Your task to perform on an android device: set the stopwatch Image 0: 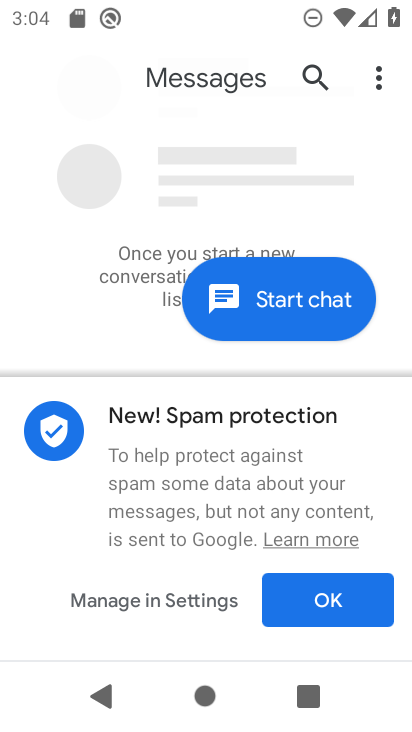
Step 0: press back button
Your task to perform on an android device: set the stopwatch Image 1: 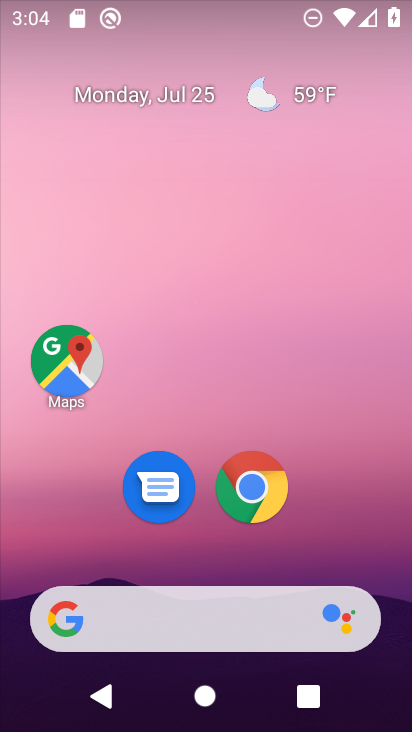
Step 1: drag from (87, 521) to (204, 71)
Your task to perform on an android device: set the stopwatch Image 2: 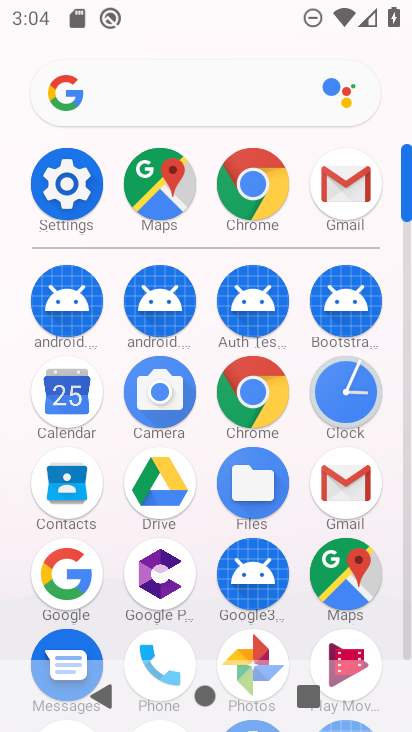
Step 2: click (365, 385)
Your task to perform on an android device: set the stopwatch Image 3: 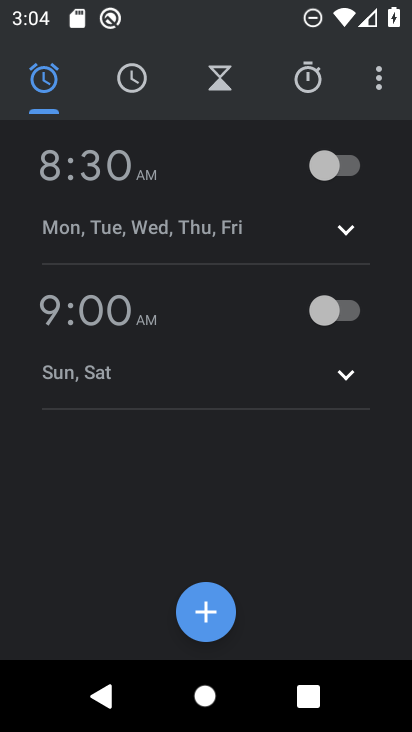
Step 3: click (126, 74)
Your task to perform on an android device: set the stopwatch Image 4: 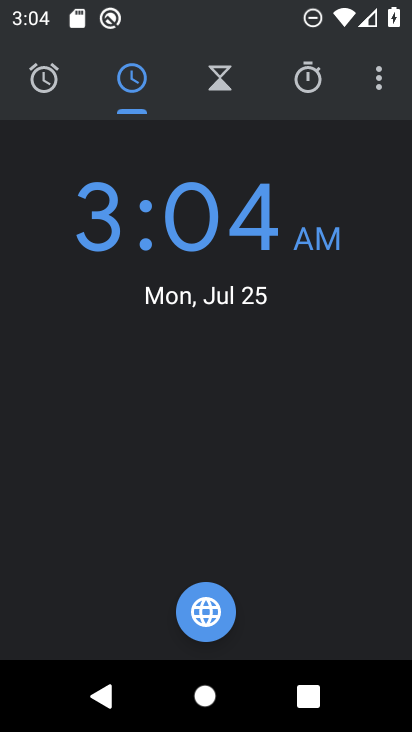
Step 4: click (219, 70)
Your task to perform on an android device: set the stopwatch Image 5: 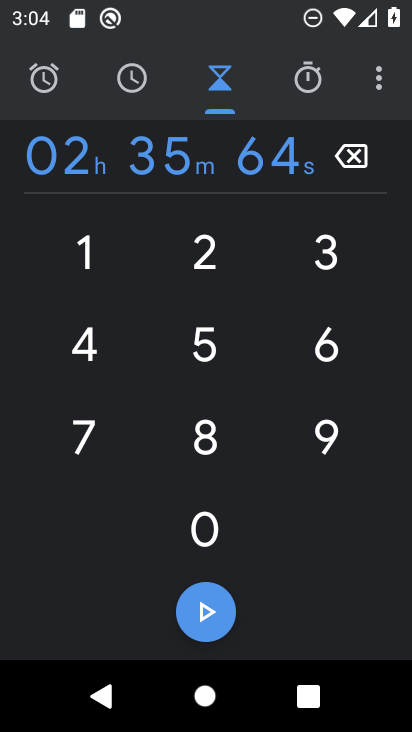
Step 5: click (298, 77)
Your task to perform on an android device: set the stopwatch Image 6: 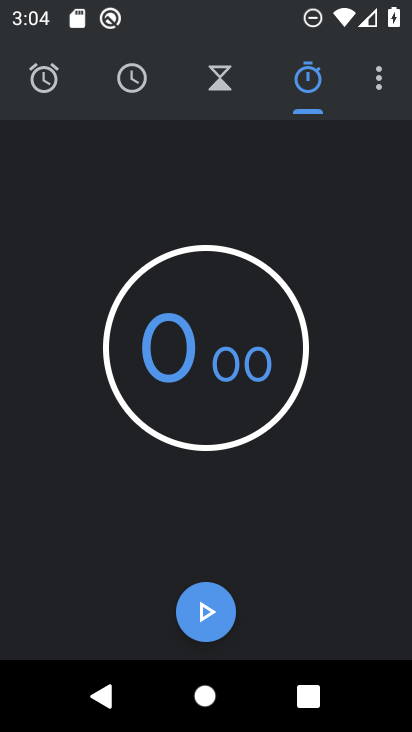
Step 6: click (180, 321)
Your task to perform on an android device: set the stopwatch Image 7: 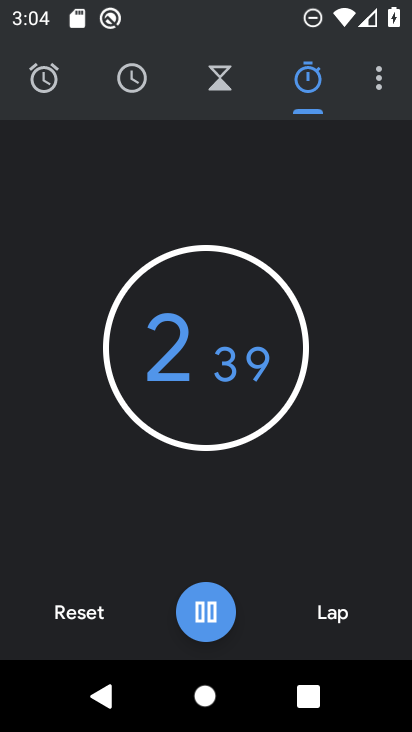
Step 7: click (169, 312)
Your task to perform on an android device: set the stopwatch Image 8: 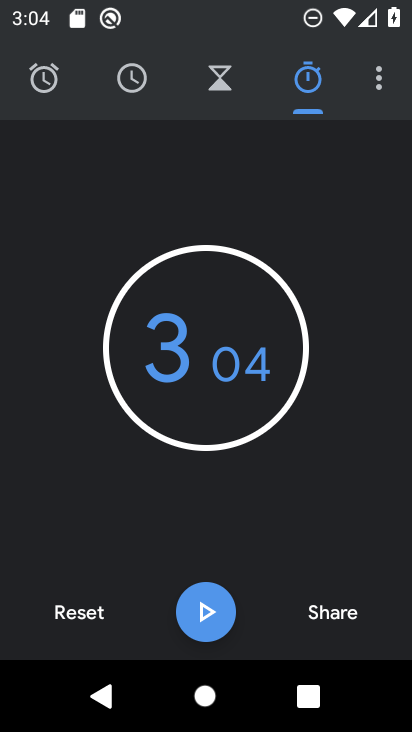
Step 8: task complete